Your task to perform on an android device: delete location history Image 0: 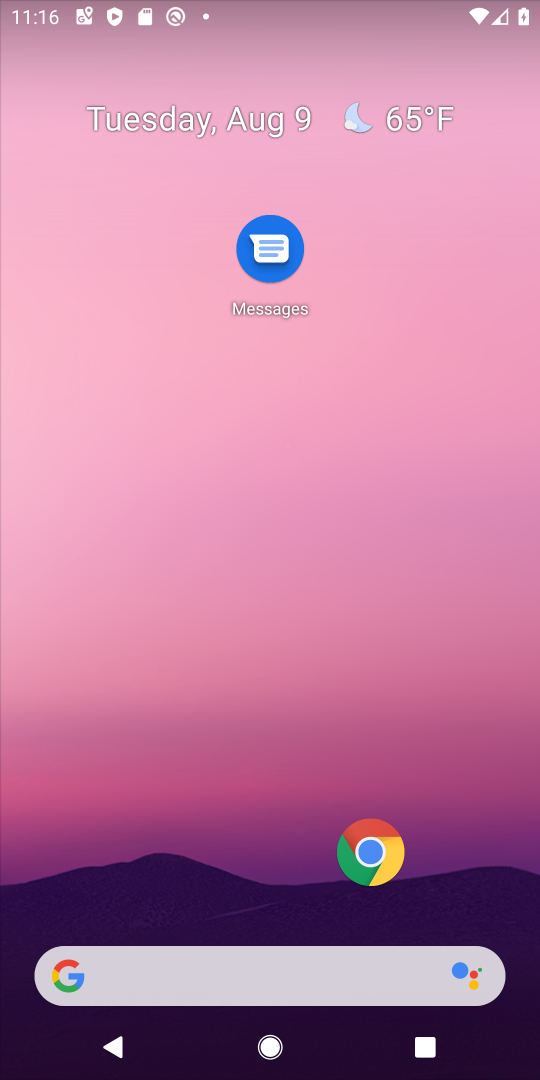
Step 0: drag from (181, 897) to (241, 401)
Your task to perform on an android device: delete location history Image 1: 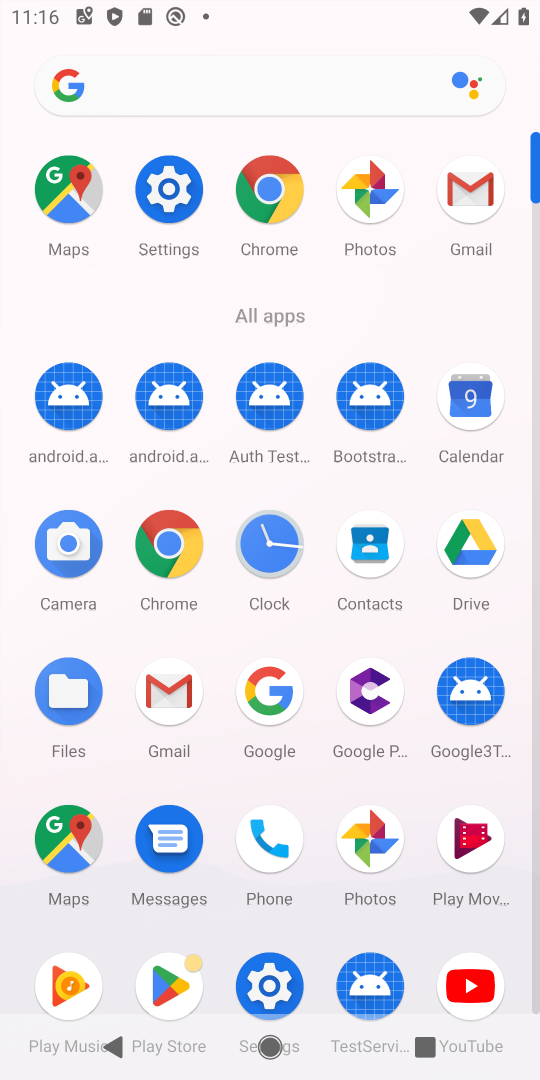
Step 1: click (95, 181)
Your task to perform on an android device: delete location history Image 2: 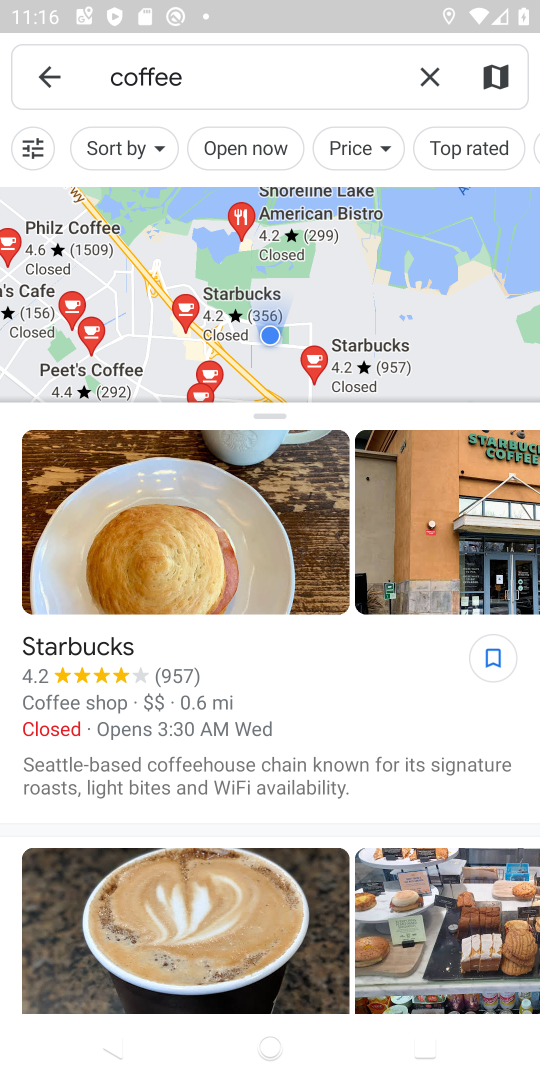
Step 2: click (52, 78)
Your task to perform on an android device: delete location history Image 3: 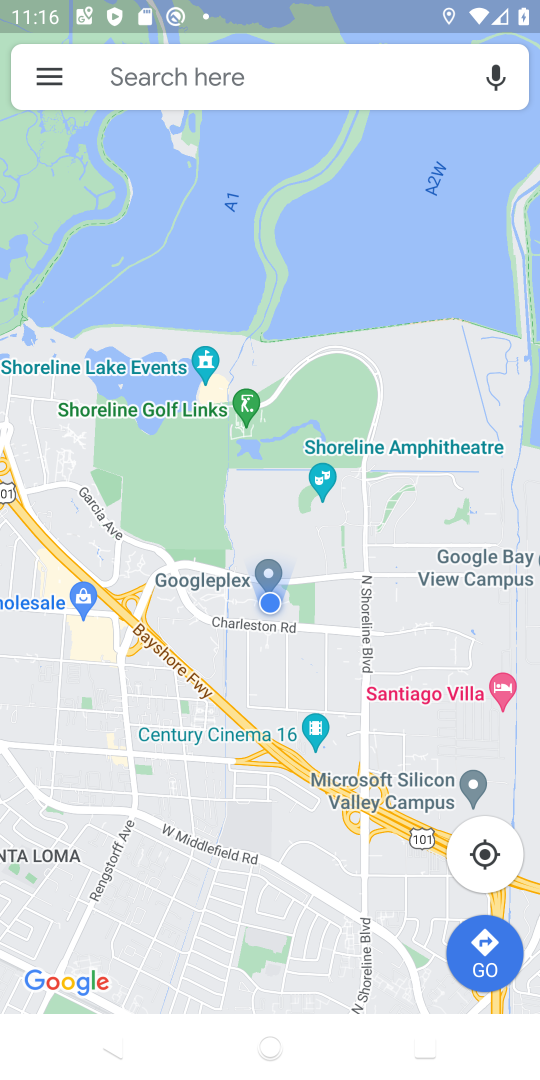
Step 3: click (52, 78)
Your task to perform on an android device: delete location history Image 4: 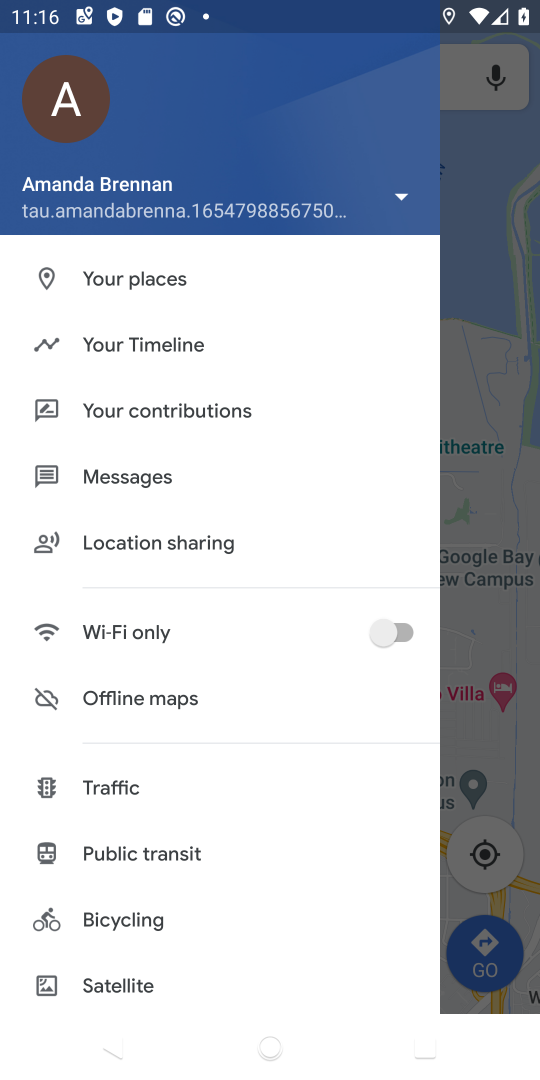
Step 4: click (133, 344)
Your task to perform on an android device: delete location history Image 5: 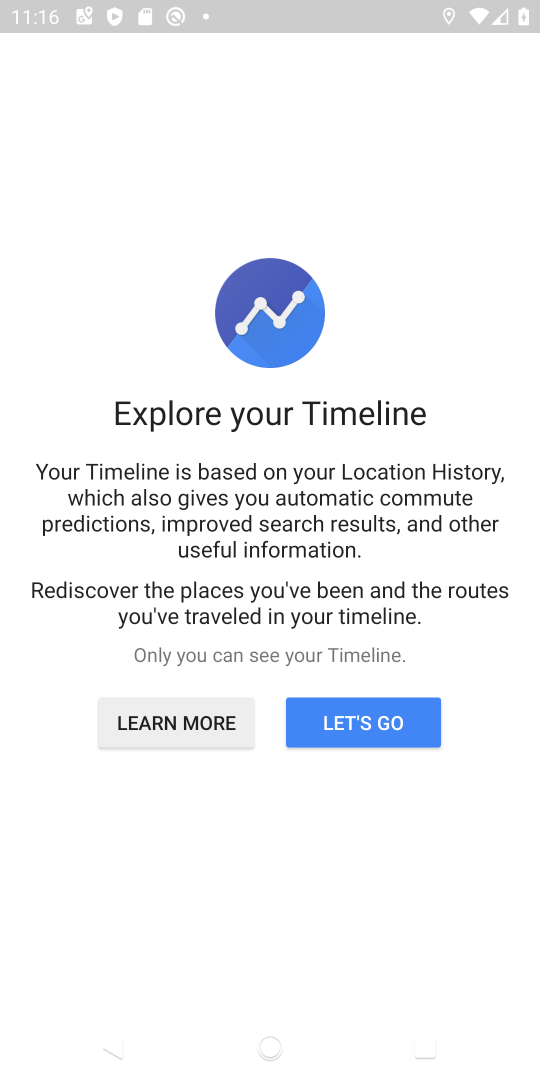
Step 5: click (355, 714)
Your task to perform on an android device: delete location history Image 6: 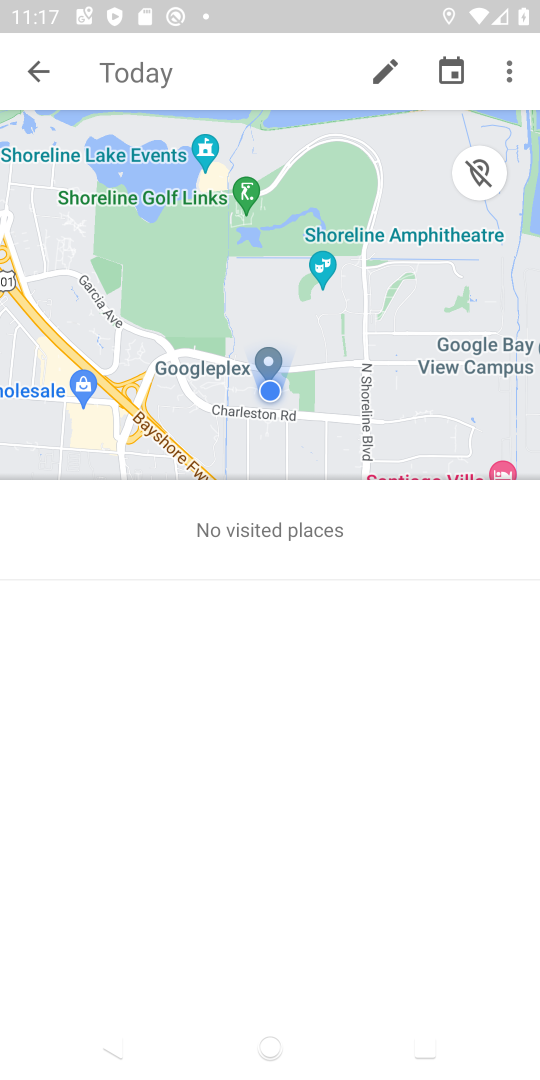
Step 6: click (513, 62)
Your task to perform on an android device: delete location history Image 7: 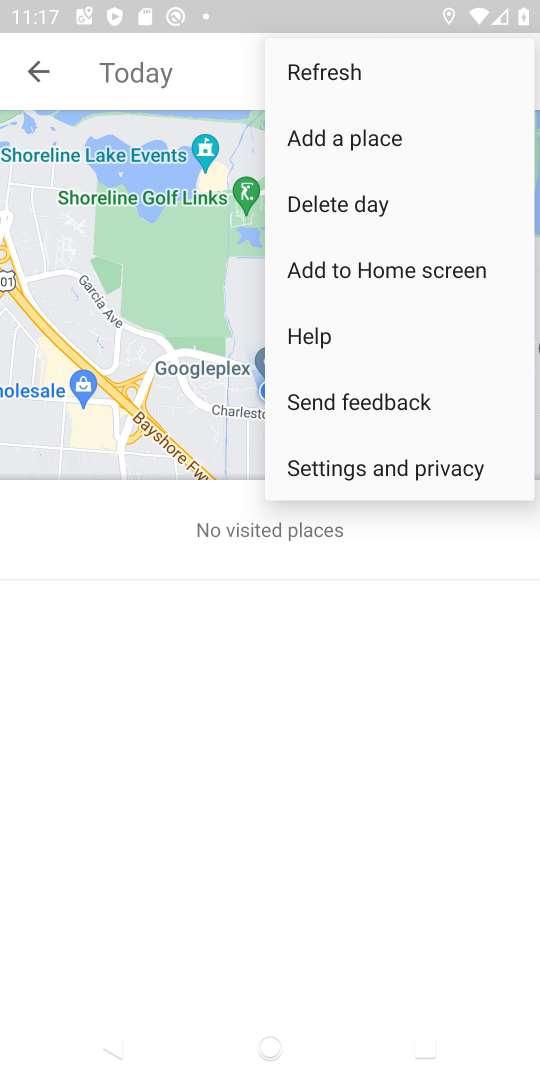
Step 7: click (318, 462)
Your task to perform on an android device: delete location history Image 8: 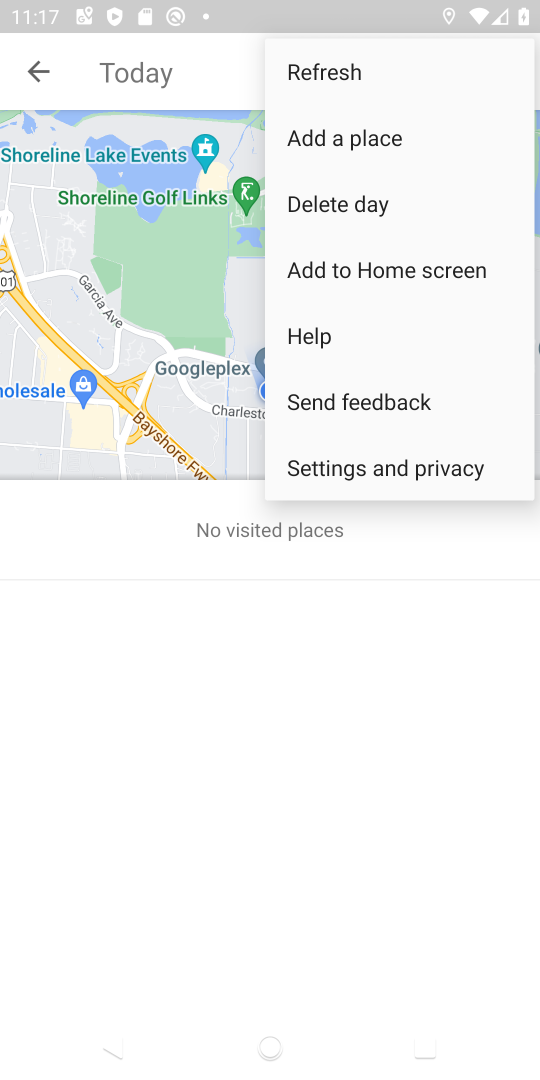
Step 8: click (318, 462)
Your task to perform on an android device: delete location history Image 9: 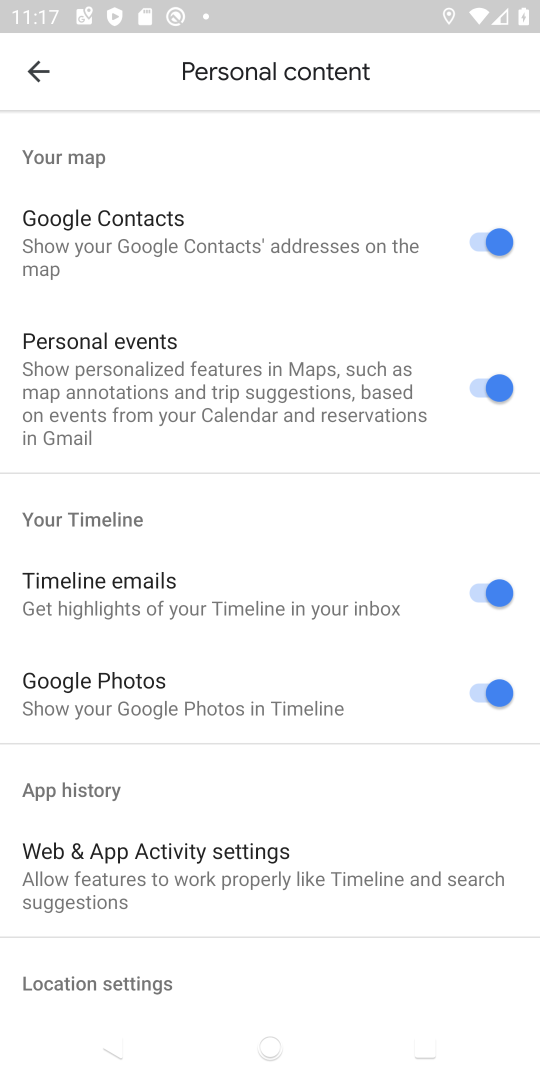
Step 9: drag from (162, 915) to (225, 268)
Your task to perform on an android device: delete location history Image 10: 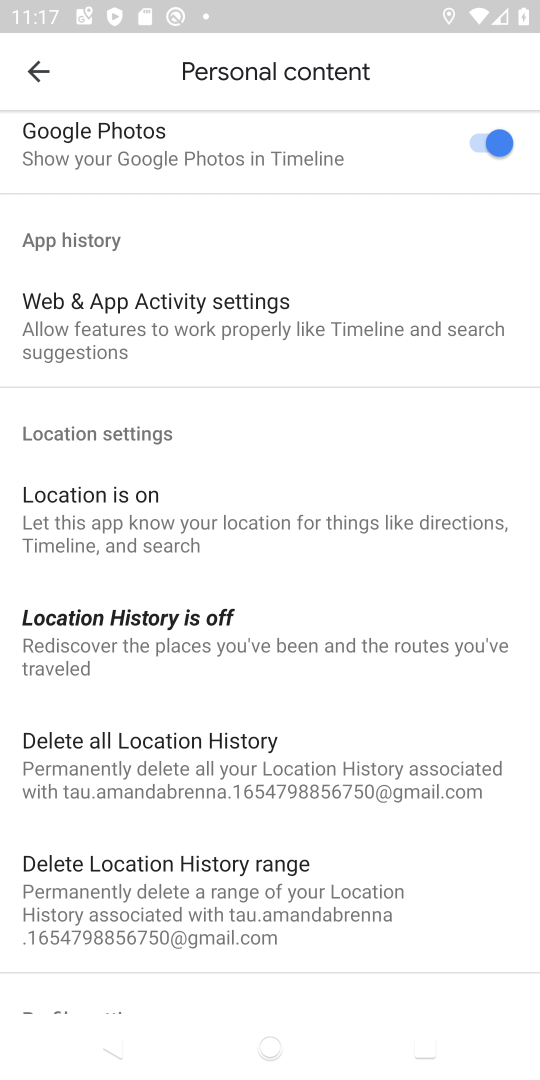
Step 10: click (216, 786)
Your task to perform on an android device: delete location history Image 11: 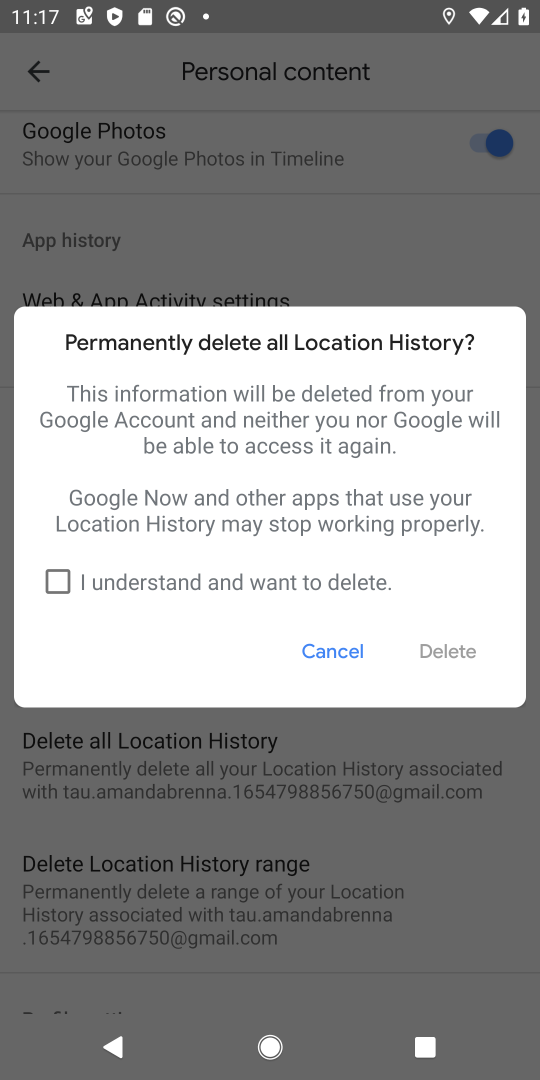
Step 11: click (57, 577)
Your task to perform on an android device: delete location history Image 12: 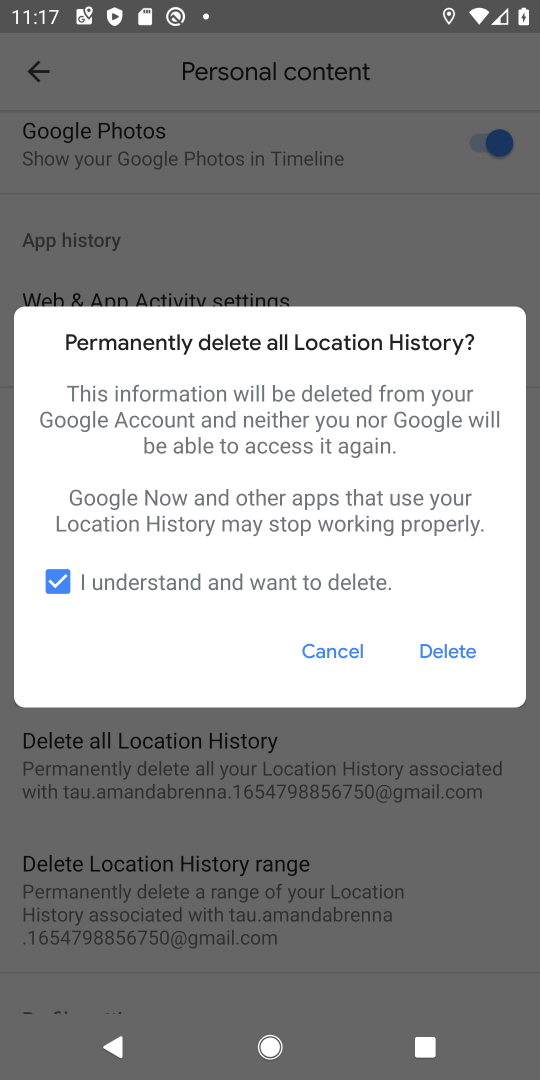
Step 12: click (425, 649)
Your task to perform on an android device: delete location history Image 13: 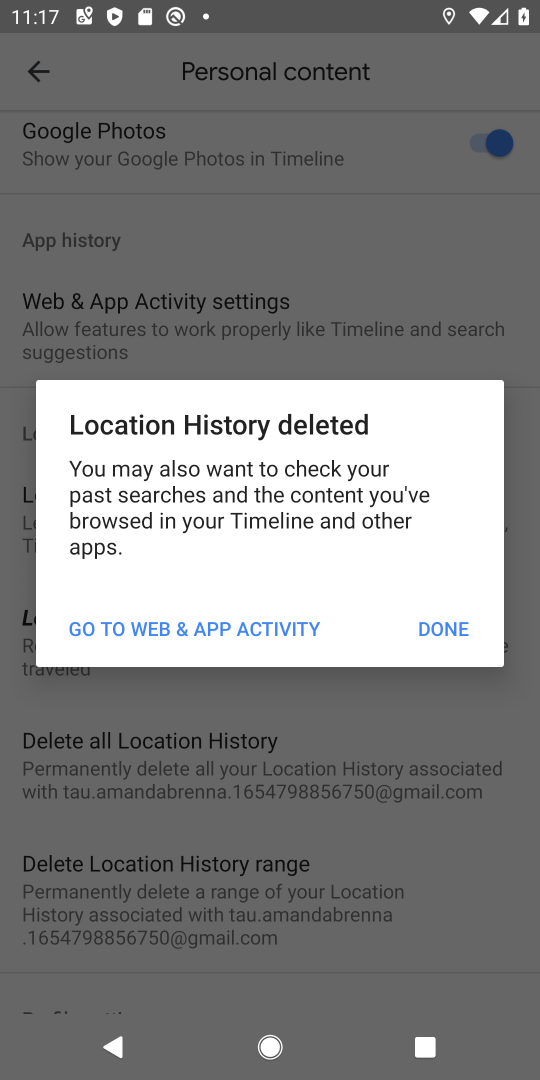
Step 13: click (425, 649)
Your task to perform on an android device: delete location history Image 14: 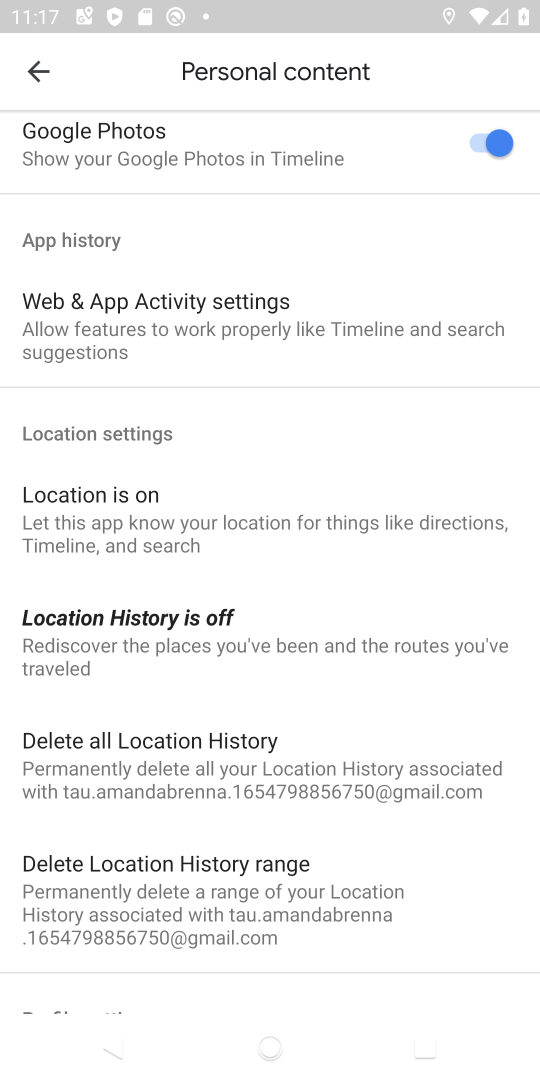
Step 14: task complete